Your task to perform on an android device: change the clock display to analog Image 0: 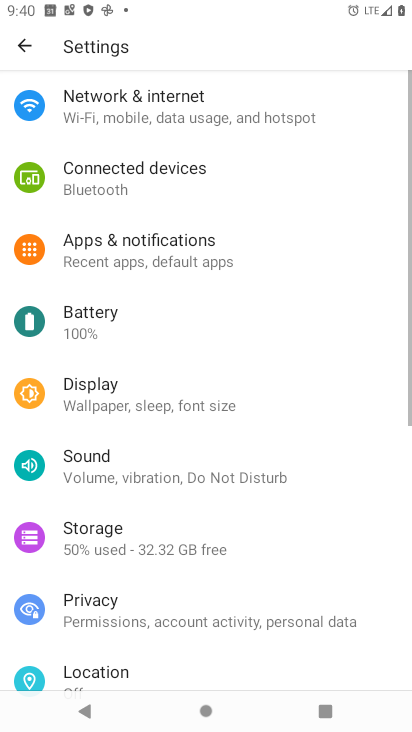
Step 0: press home button
Your task to perform on an android device: change the clock display to analog Image 1: 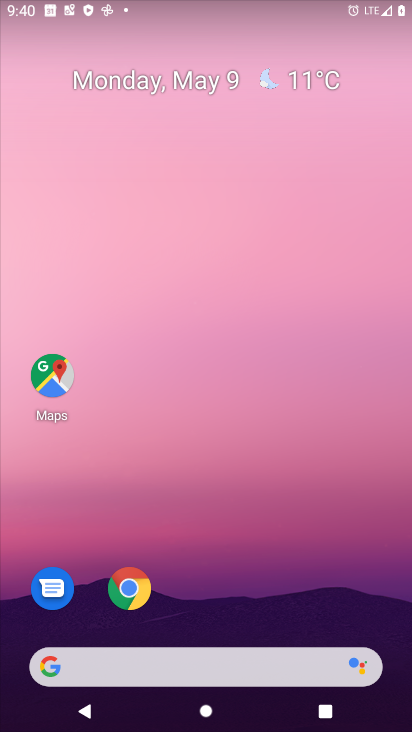
Step 1: drag from (322, 634) to (256, 109)
Your task to perform on an android device: change the clock display to analog Image 2: 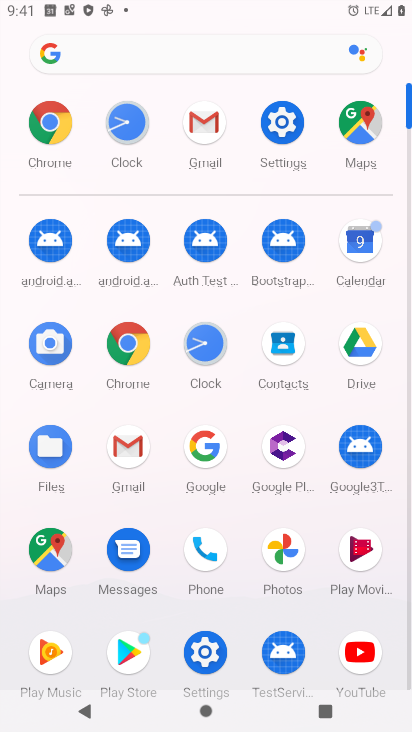
Step 2: click (222, 340)
Your task to perform on an android device: change the clock display to analog Image 3: 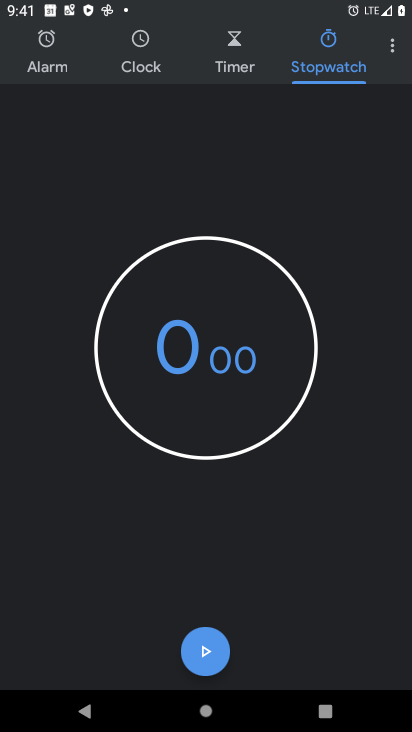
Step 3: click (392, 49)
Your task to perform on an android device: change the clock display to analog Image 4: 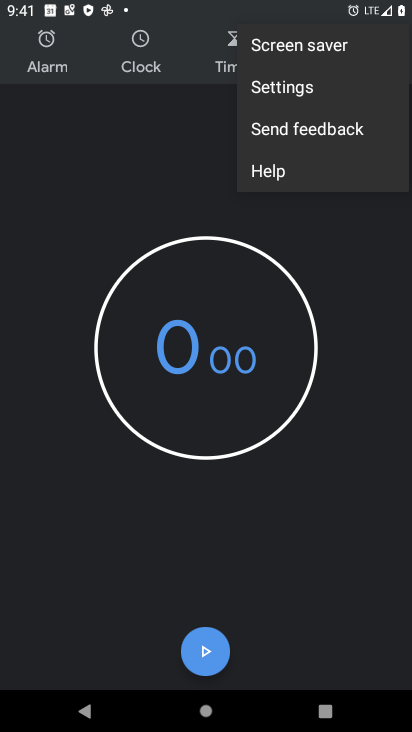
Step 4: click (299, 86)
Your task to perform on an android device: change the clock display to analog Image 5: 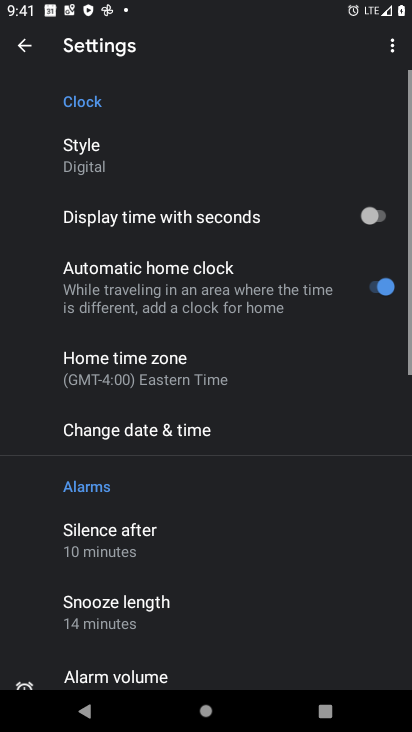
Step 5: click (153, 148)
Your task to perform on an android device: change the clock display to analog Image 6: 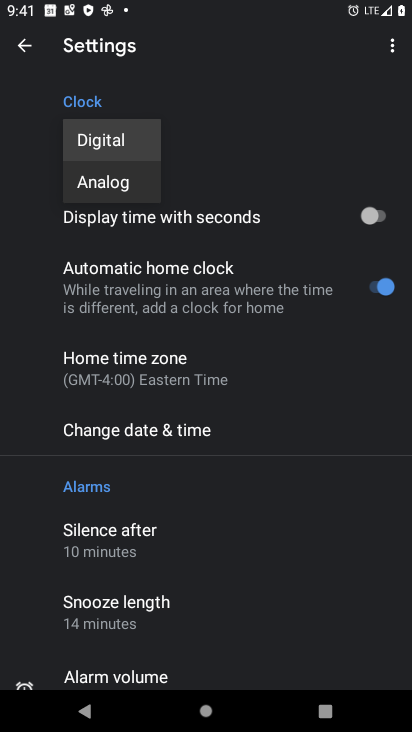
Step 6: click (131, 189)
Your task to perform on an android device: change the clock display to analog Image 7: 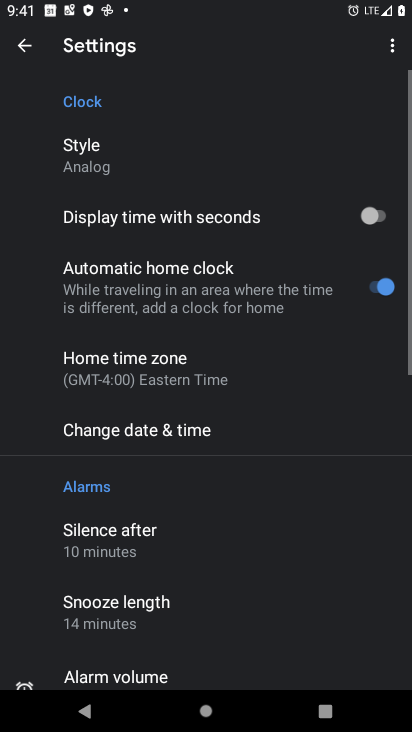
Step 7: task complete